Your task to perform on an android device: Go to CNN.com Image 0: 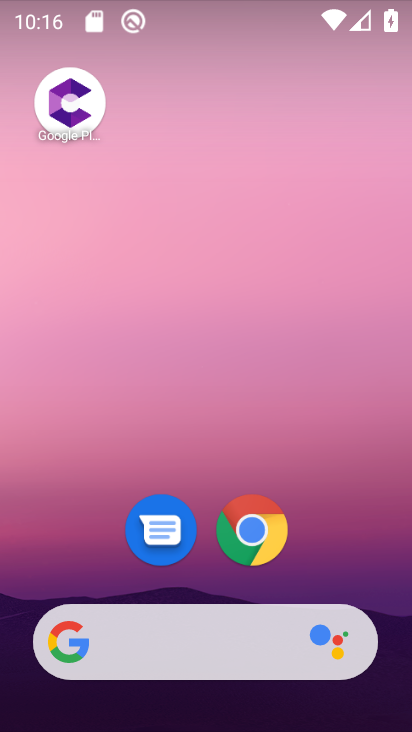
Step 0: click (260, 547)
Your task to perform on an android device: Go to CNN.com Image 1: 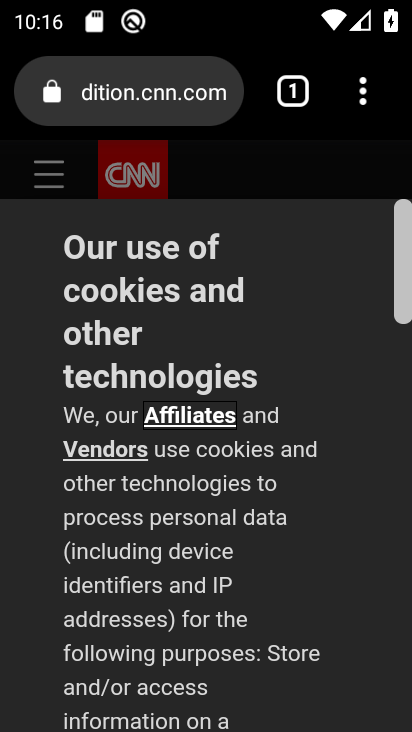
Step 1: task complete